Your task to perform on an android device: turn on airplane mode Image 0: 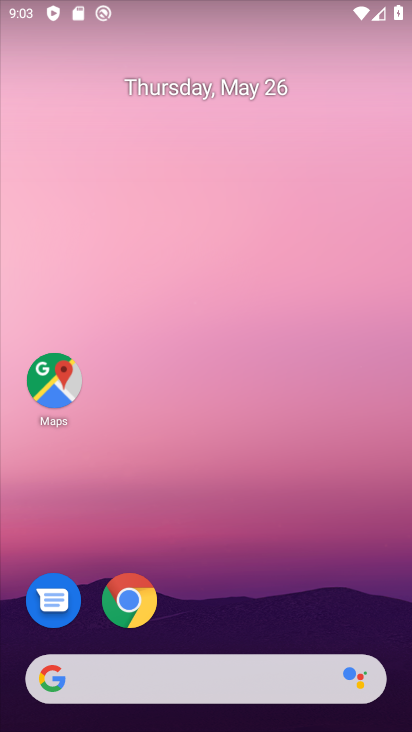
Step 0: drag from (306, 578) to (263, 74)
Your task to perform on an android device: turn on airplane mode Image 1: 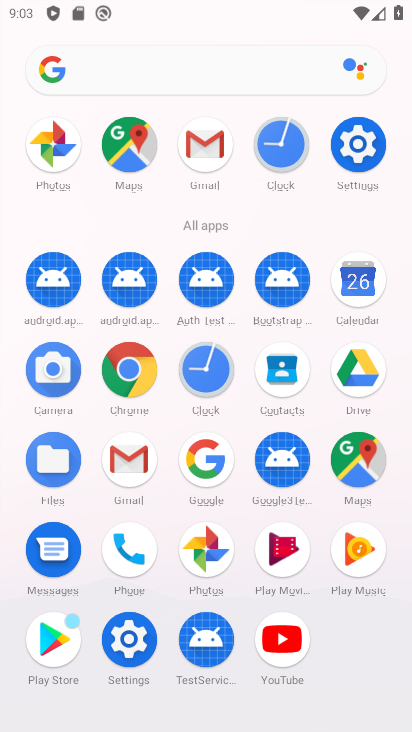
Step 1: click (365, 123)
Your task to perform on an android device: turn on airplane mode Image 2: 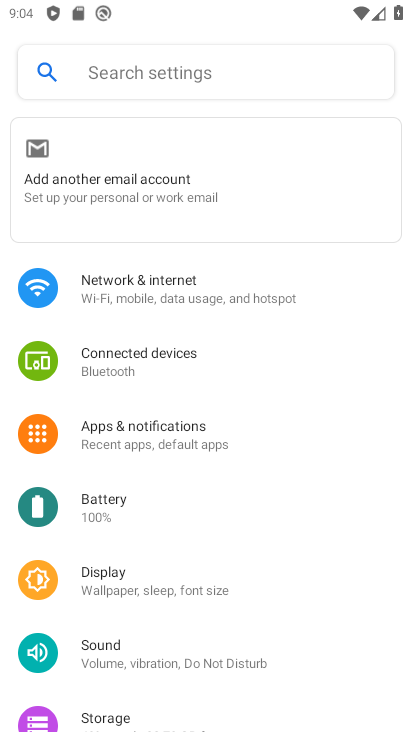
Step 2: drag from (226, 572) to (260, 344)
Your task to perform on an android device: turn on airplane mode Image 3: 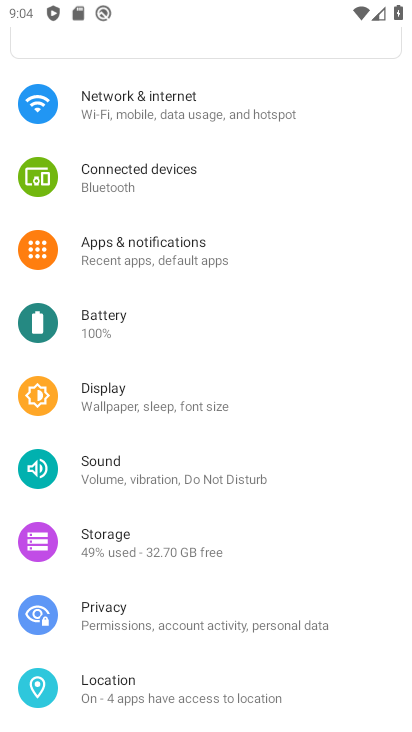
Step 3: click (186, 121)
Your task to perform on an android device: turn on airplane mode Image 4: 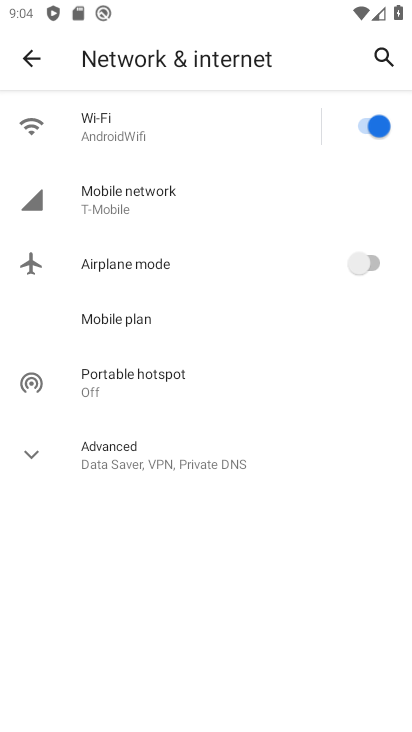
Step 4: click (344, 273)
Your task to perform on an android device: turn on airplane mode Image 5: 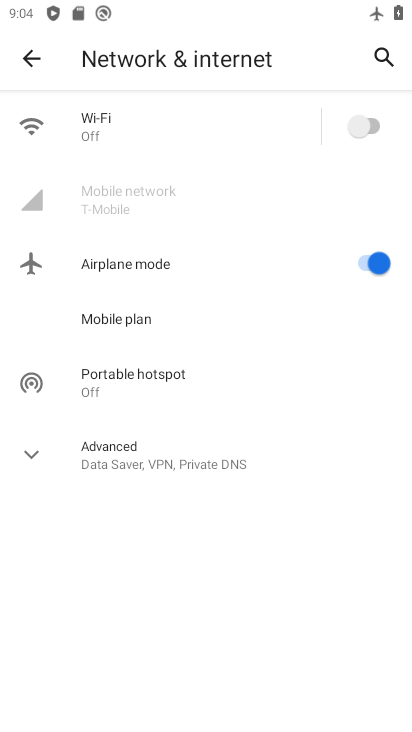
Step 5: task complete